Your task to perform on an android device: toggle pop-ups in chrome Image 0: 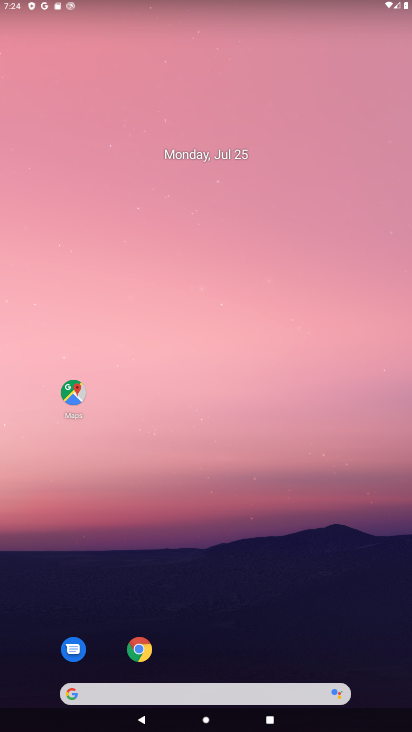
Step 0: drag from (195, 584) to (241, 157)
Your task to perform on an android device: toggle pop-ups in chrome Image 1: 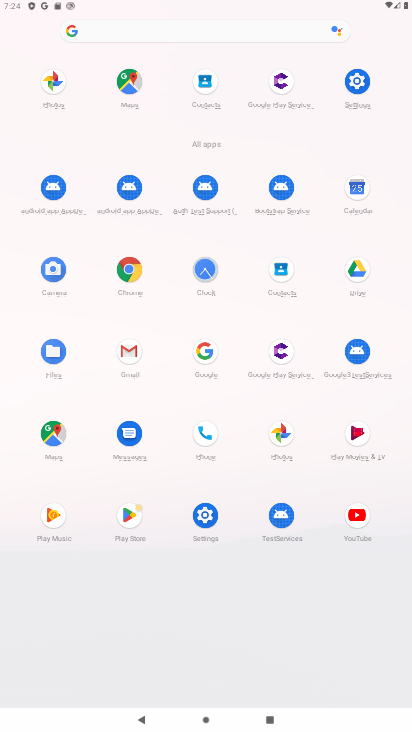
Step 1: click (123, 271)
Your task to perform on an android device: toggle pop-ups in chrome Image 2: 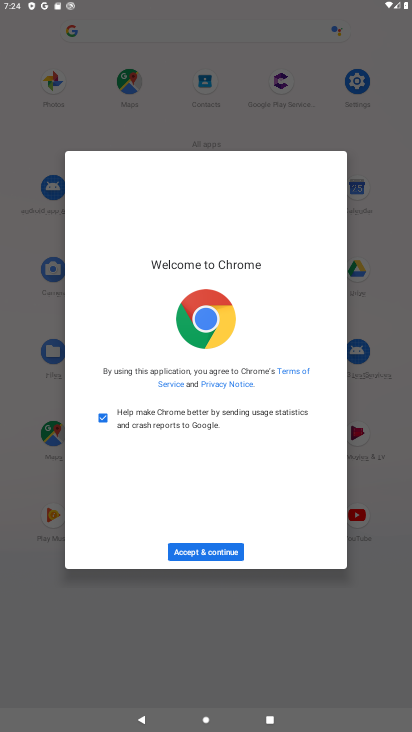
Step 2: click (235, 546)
Your task to perform on an android device: toggle pop-ups in chrome Image 3: 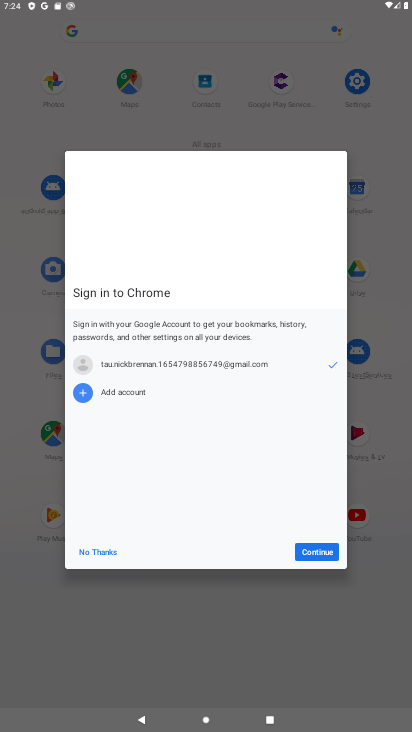
Step 3: click (310, 556)
Your task to perform on an android device: toggle pop-ups in chrome Image 4: 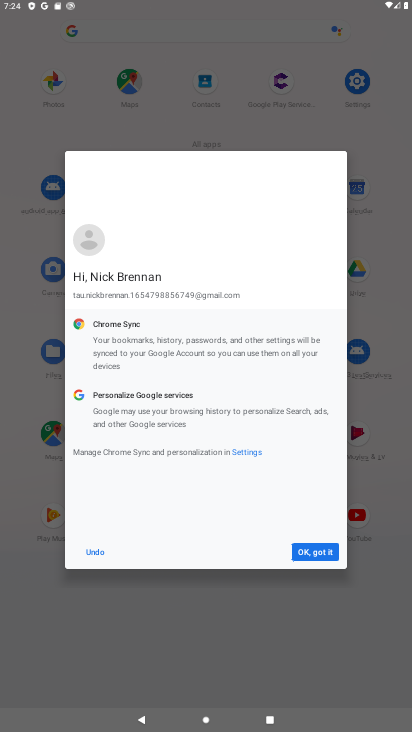
Step 4: click (312, 552)
Your task to perform on an android device: toggle pop-ups in chrome Image 5: 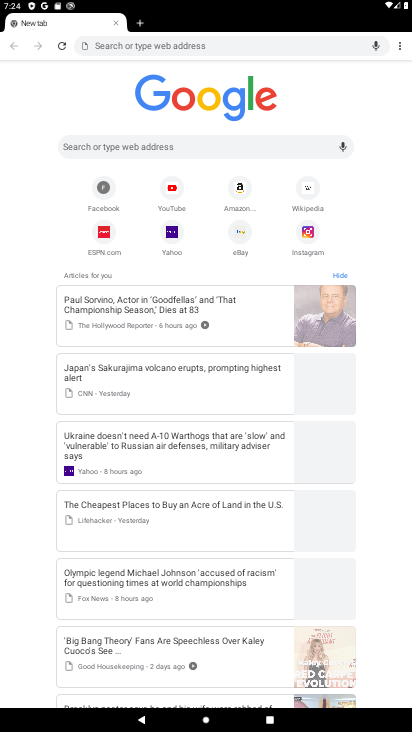
Step 5: click (401, 45)
Your task to perform on an android device: toggle pop-ups in chrome Image 6: 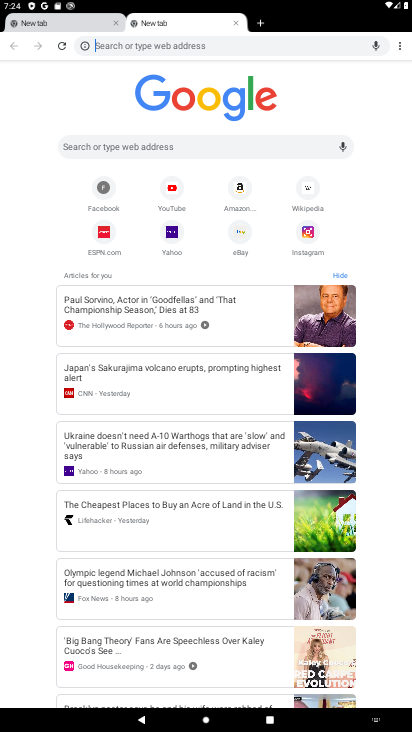
Step 6: click (401, 45)
Your task to perform on an android device: toggle pop-ups in chrome Image 7: 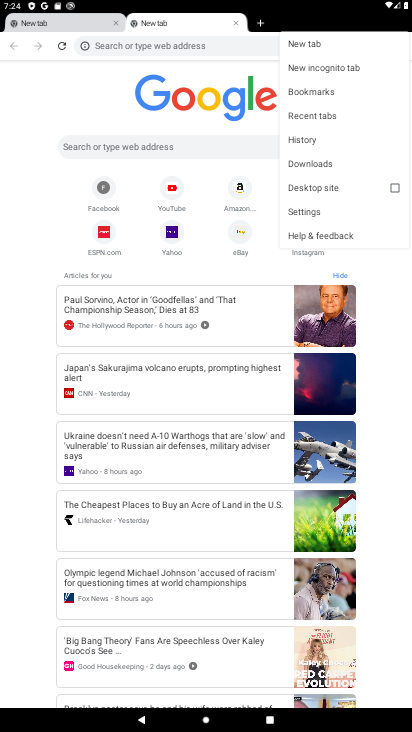
Step 7: click (294, 216)
Your task to perform on an android device: toggle pop-ups in chrome Image 8: 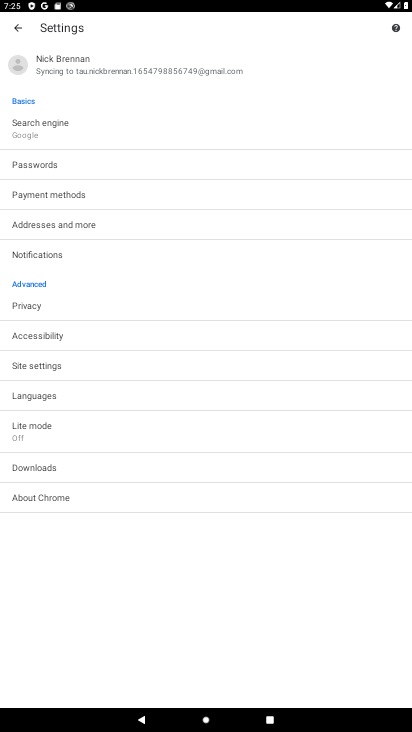
Step 8: click (47, 365)
Your task to perform on an android device: toggle pop-ups in chrome Image 9: 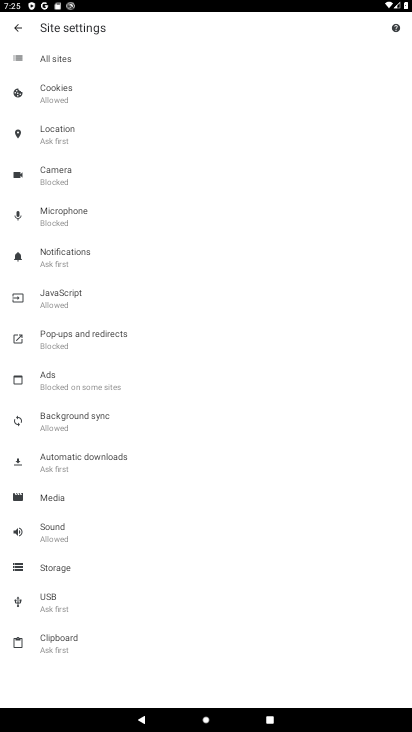
Step 9: click (98, 327)
Your task to perform on an android device: toggle pop-ups in chrome Image 10: 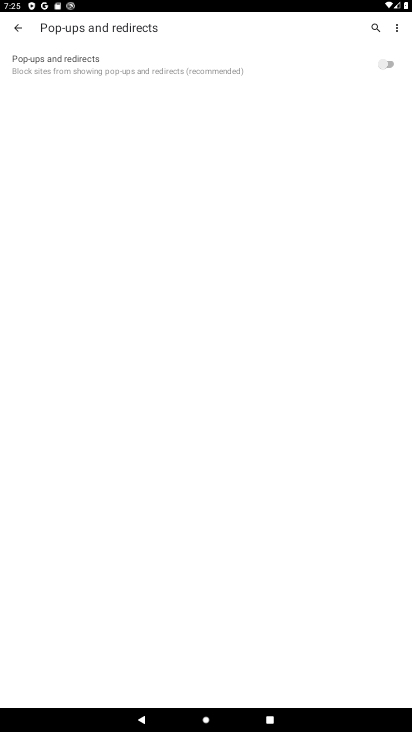
Step 10: click (382, 64)
Your task to perform on an android device: toggle pop-ups in chrome Image 11: 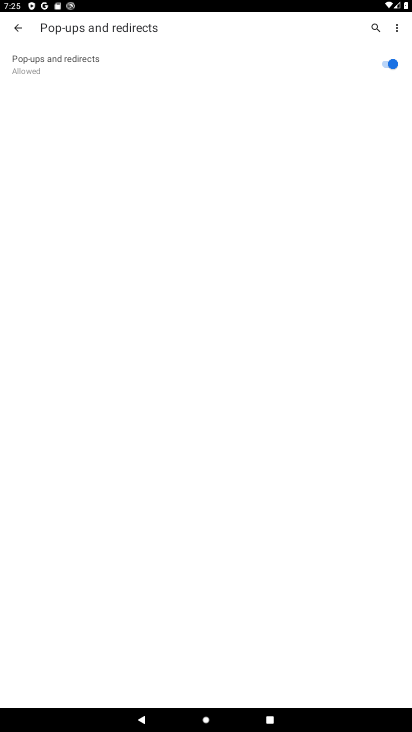
Step 11: task complete